Your task to perform on an android device: turn on location history Image 0: 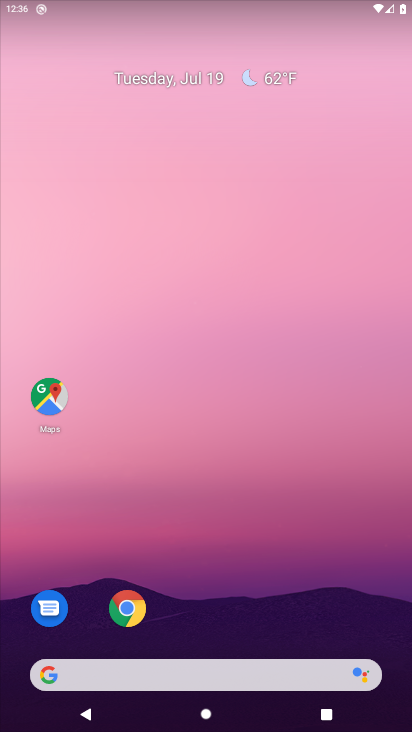
Step 0: drag from (227, 638) to (278, 83)
Your task to perform on an android device: turn on location history Image 1: 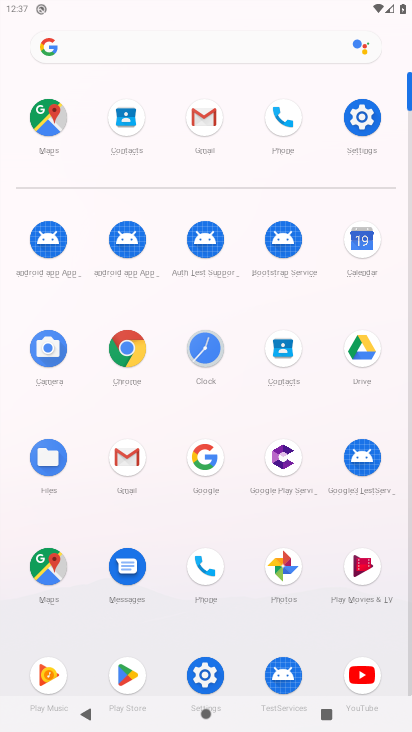
Step 1: click (361, 110)
Your task to perform on an android device: turn on location history Image 2: 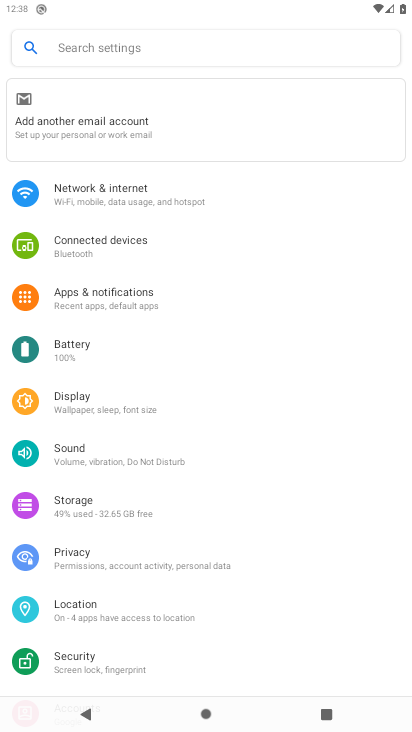
Step 2: click (113, 604)
Your task to perform on an android device: turn on location history Image 3: 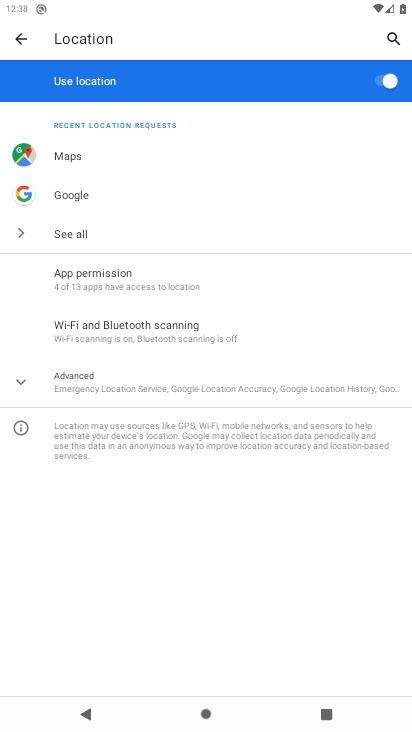
Step 3: click (16, 379)
Your task to perform on an android device: turn on location history Image 4: 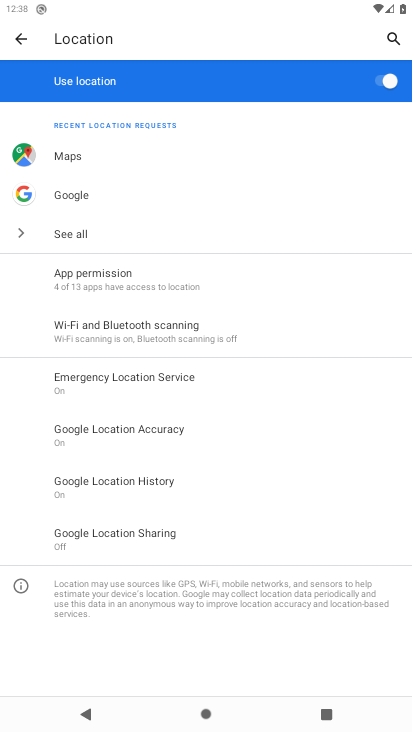
Step 4: click (119, 491)
Your task to perform on an android device: turn on location history Image 5: 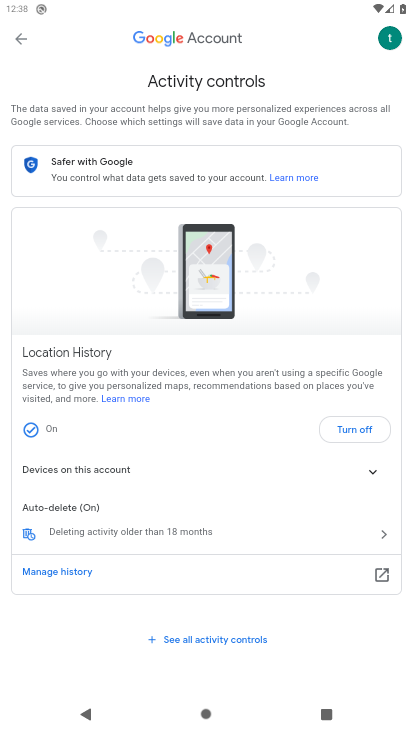
Step 5: task complete